Your task to perform on an android device: change text size in settings app Image 0: 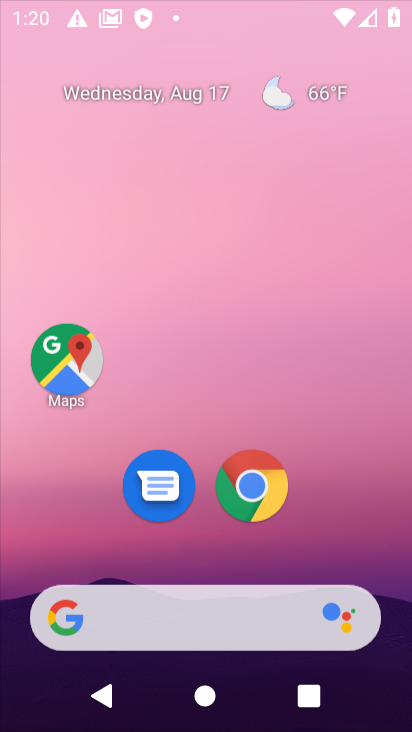
Step 0: press home button
Your task to perform on an android device: change text size in settings app Image 1: 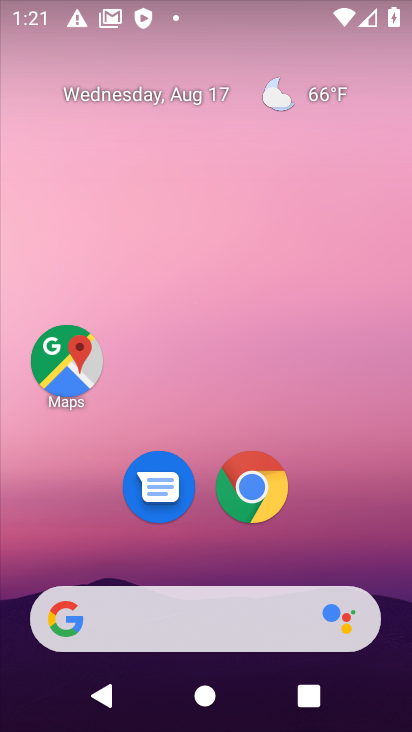
Step 1: press back button
Your task to perform on an android device: change text size in settings app Image 2: 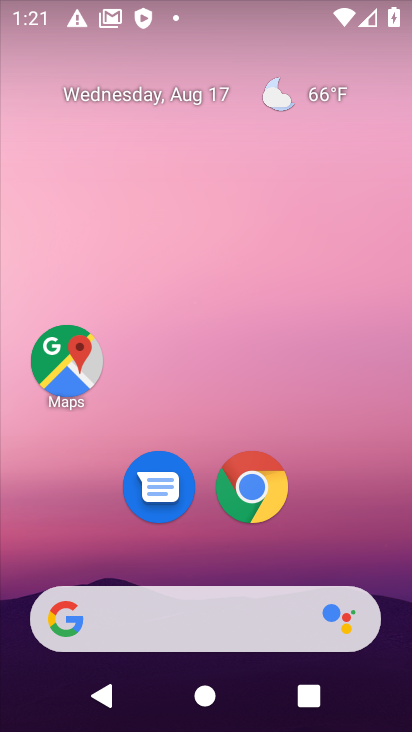
Step 2: click (182, 258)
Your task to perform on an android device: change text size in settings app Image 3: 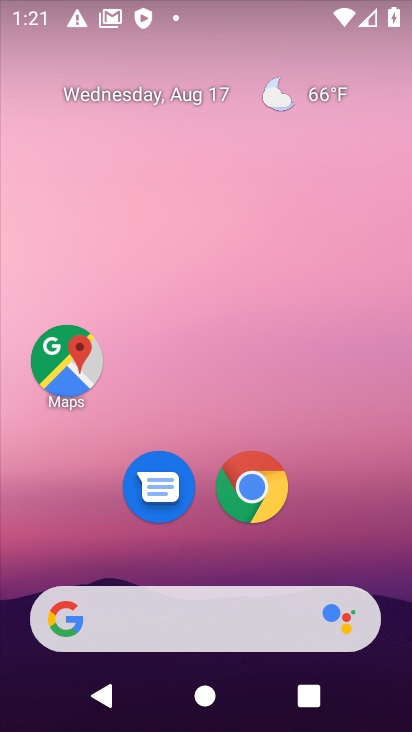
Step 3: drag from (208, 524) to (310, 94)
Your task to perform on an android device: change text size in settings app Image 4: 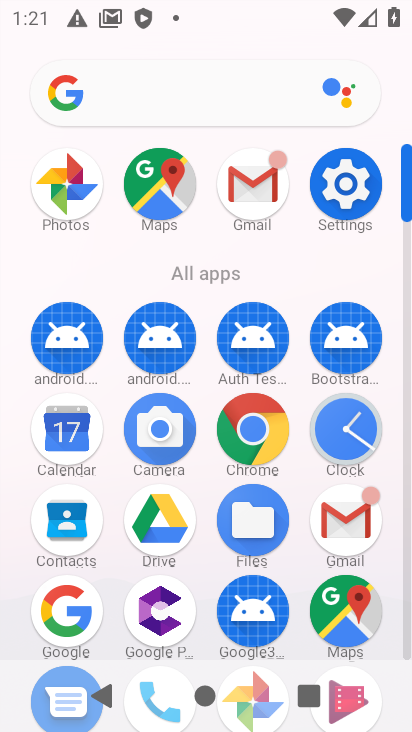
Step 4: click (342, 193)
Your task to perform on an android device: change text size in settings app Image 5: 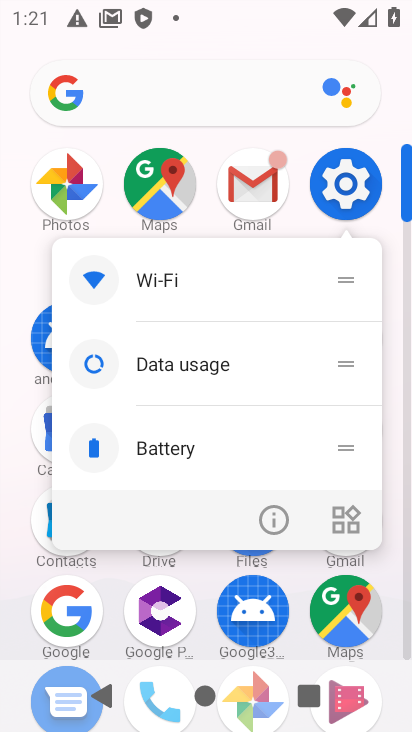
Step 5: click (342, 183)
Your task to perform on an android device: change text size in settings app Image 6: 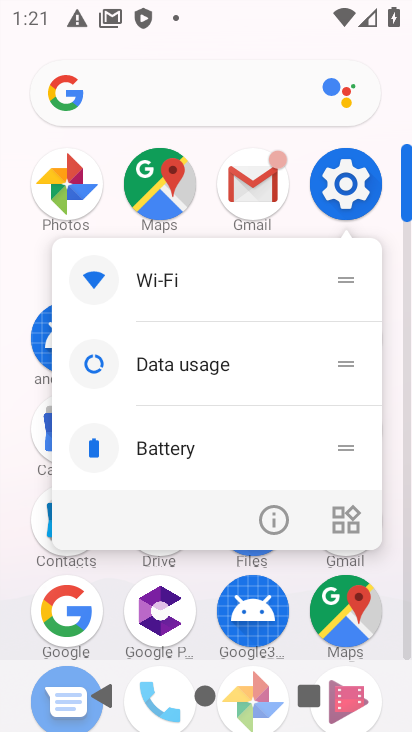
Step 6: click (342, 183)
Your task to perform on an android device: change text size in settings app Image 7: 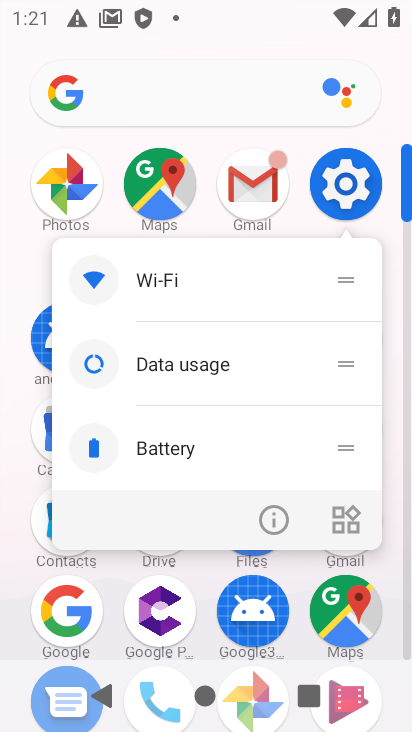
Step 7: click (342, 183)
Your task to perform on an android device: change text size in settings app Image 8: 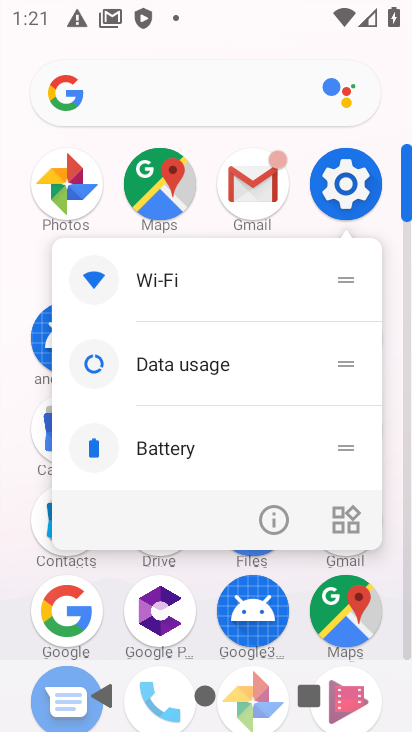
Step 8: click (342, 183)
Your task to perform on an android device: change text size in settings app Image 9: 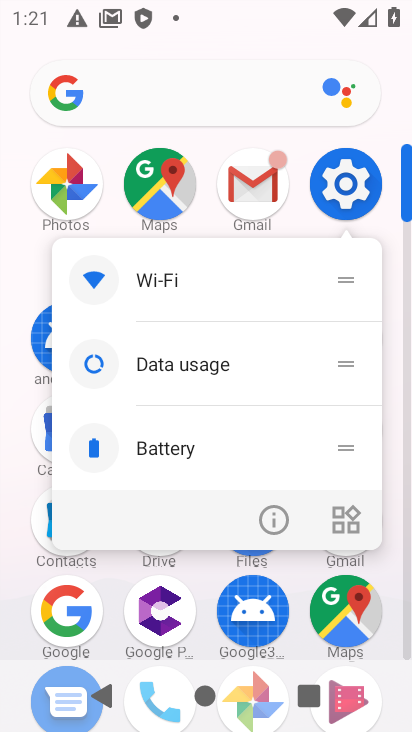
Step 9: click (342, 183)
Your task to perform on an android device: change text size in settings app Image 10: 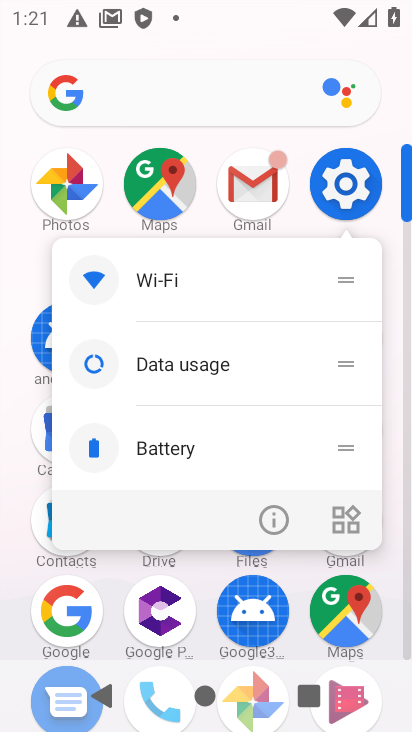
Step 10: click (347, 185)
Your task to perform on an android device: change text size in settings app Image 11: 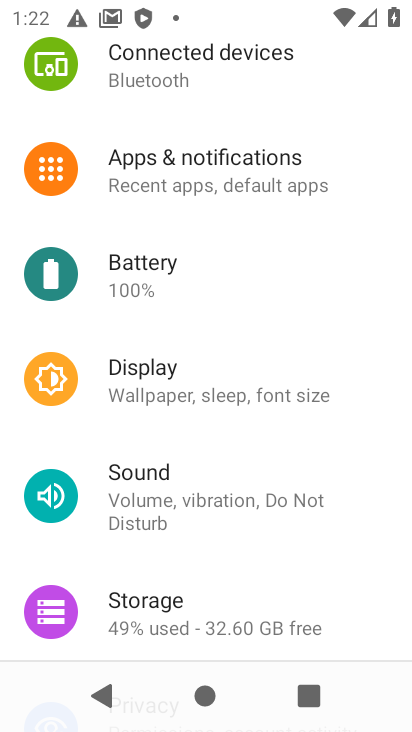
Step 11: click (155, 393)
Your task to perform on an android device: change text size in settings app Image 12: 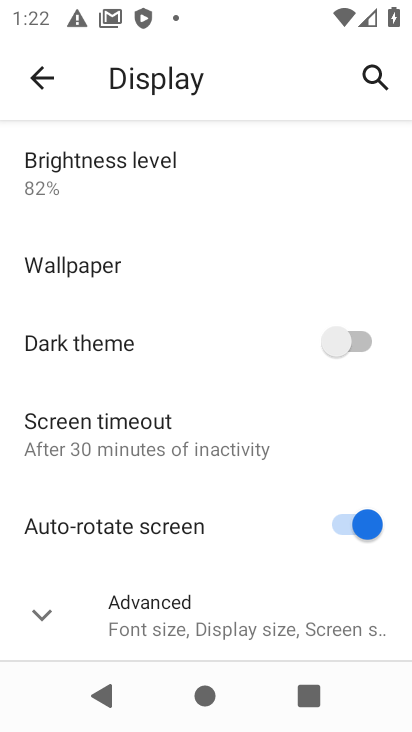
Step 12: click (145, 613)
Your task to perform on an android device: change text size in settings app Image 13: 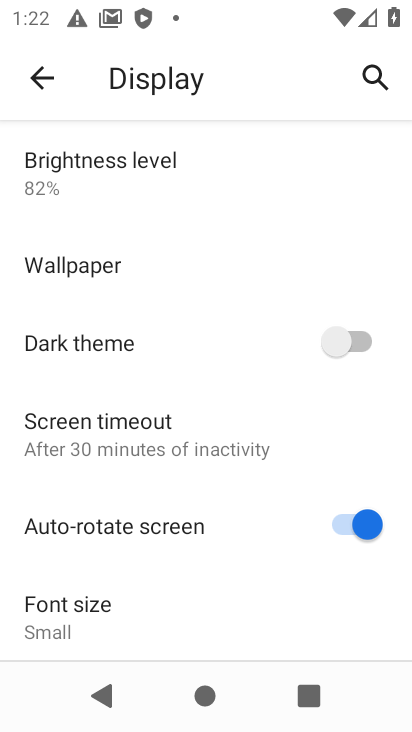
Step 13: click (34, 621)
Your task to perform on an android device: change text size in settings app Image 14: 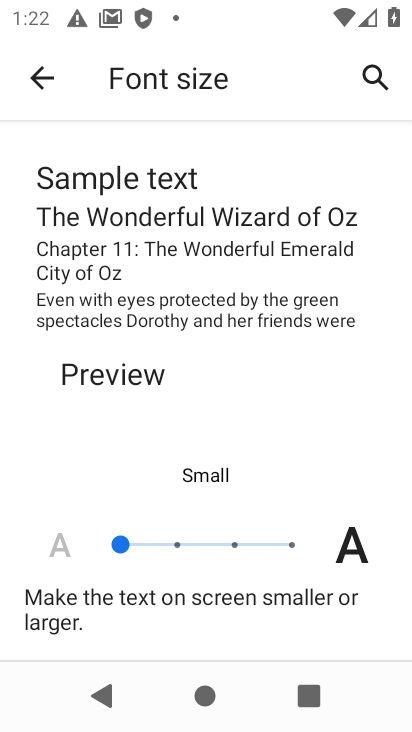
Step 14: click (172, 544)
Your task to perform on an android device: change text size in settings app Image 15: 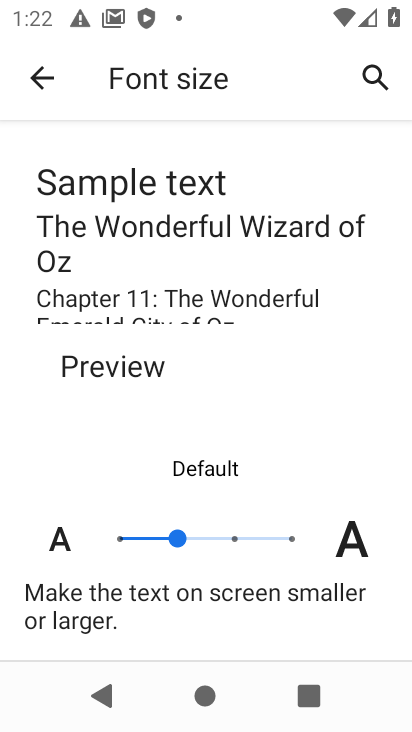
Step 15: task complete